Your task to perform on an android device: toggle wifi Image 0: 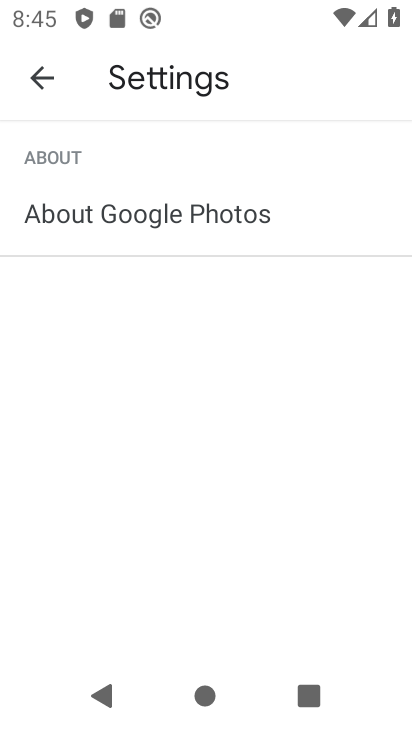
Step 0: press back button
Your task to perform on an android device: toggle wifi Image 1: 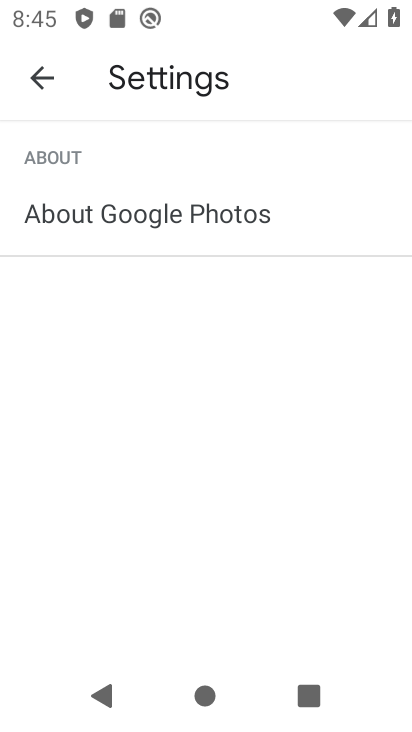
Step 1: press back button
Your task to perform on an android device: toggle wifi Image 2: 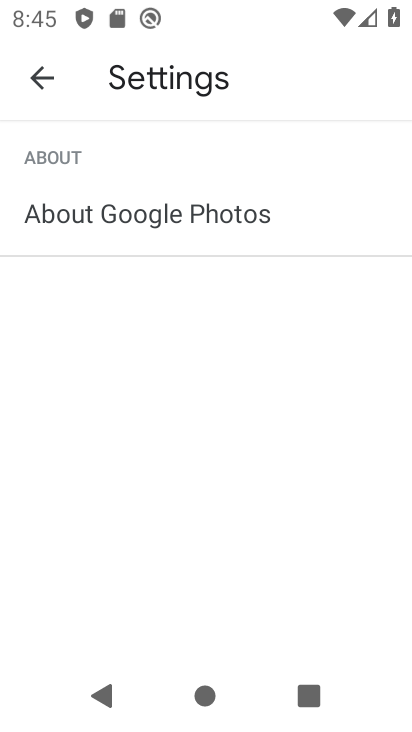
Step 2: press back button
Your task to perform on an android device: toggle wifi Image 3: 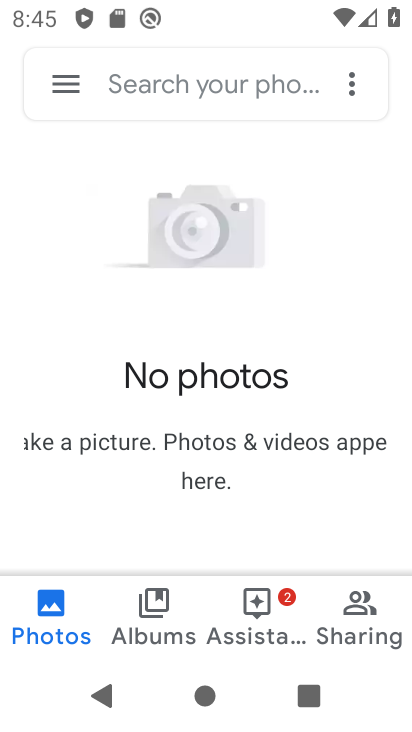
Step 3: press back button
Your task to perform on an android device: toggle wifi Image 4: 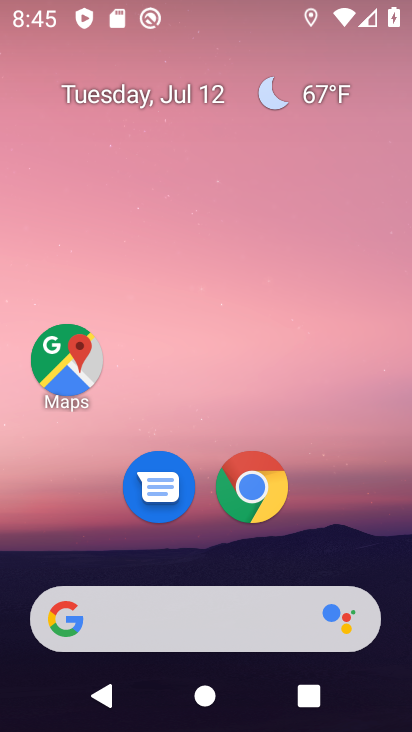
Step 4: drag from (159, 9) to (161, 579)
Your task to perform on an android device: toggle wifi Image 5: 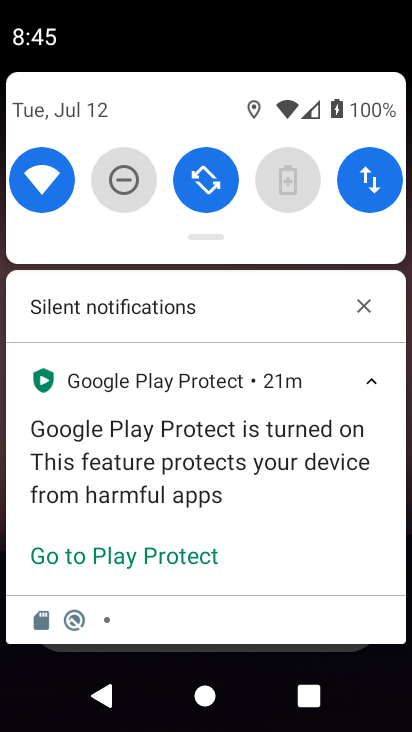
Step 5: click (50, 179)
Your task to perform on an android device: toggle wifi Image 6: 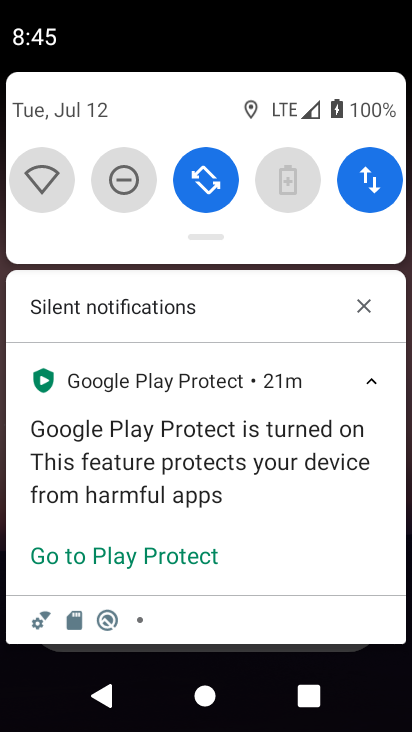
Step 6: task complete